Your task to perform on an android device: Open Amazon Image 0: 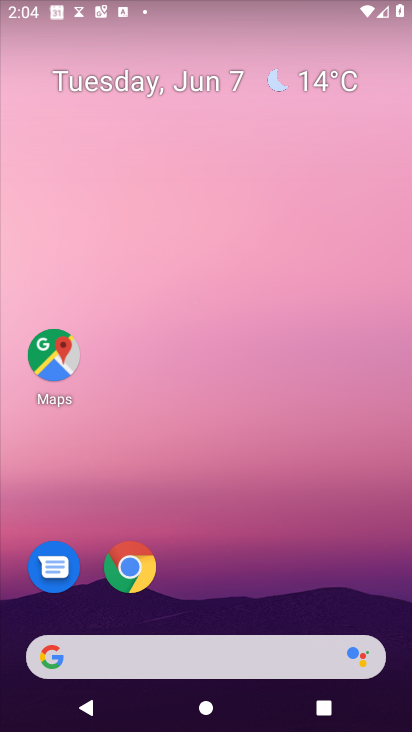
Step 0: drag from (82, 621) to (179, 134)
Your task to perform on an android device: Open Amazon Image 1: 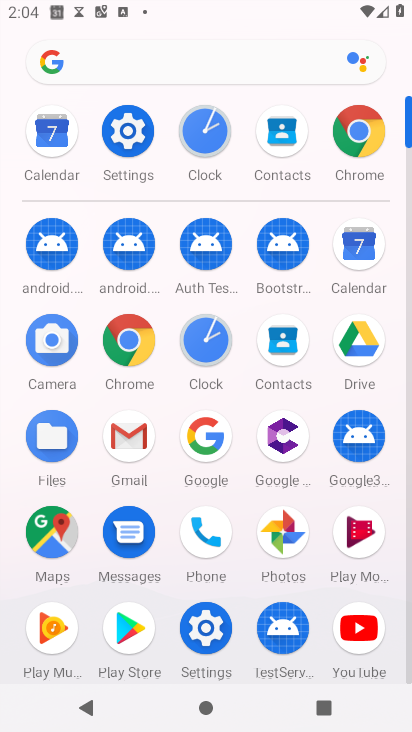
Step 1: click (114, 343)
Your task to perform on an android device: Open Amazon Image 2: 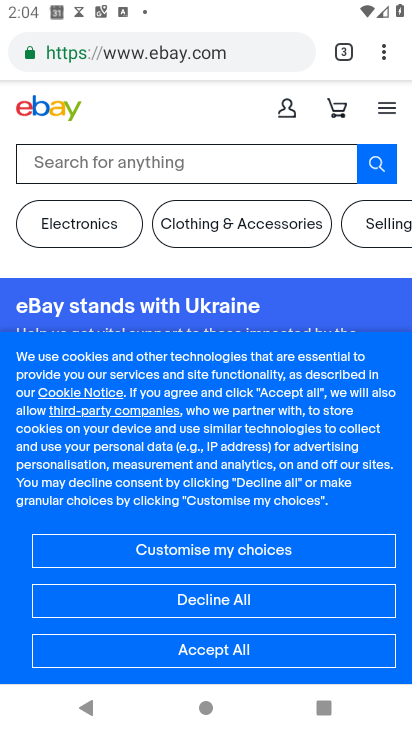
Step 2: drag from (378, 56) to (224, 114)
Your task to perform on an android device: Open Amazon Image 3: 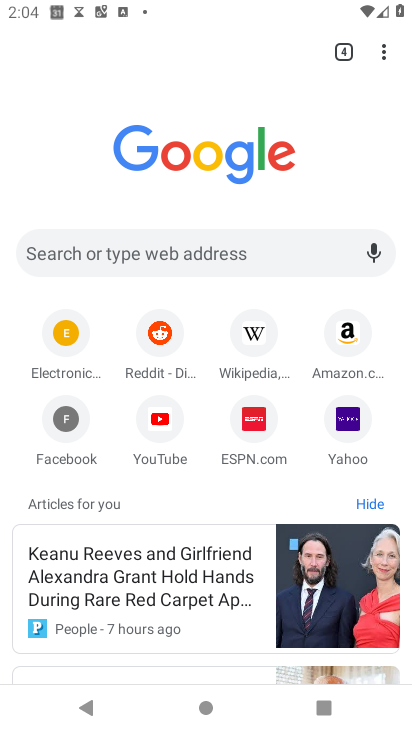
Step 3: click (341, 341)
Your task to perform on an android device: Open Amazon Image 4: 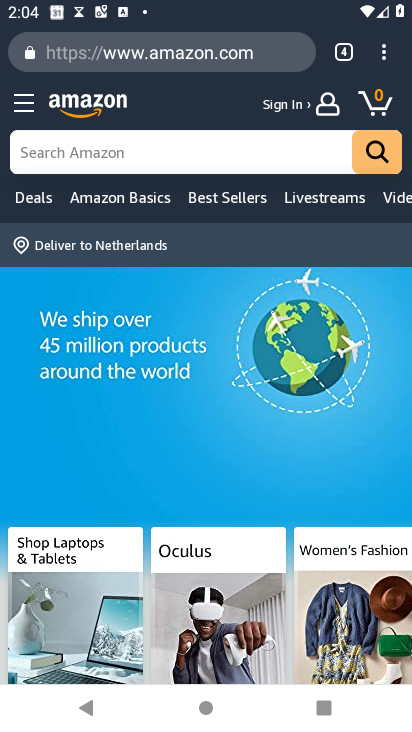
Step 4: task complete